Your task to perform on an android device: visit the assistant section in the google photos Image 0: 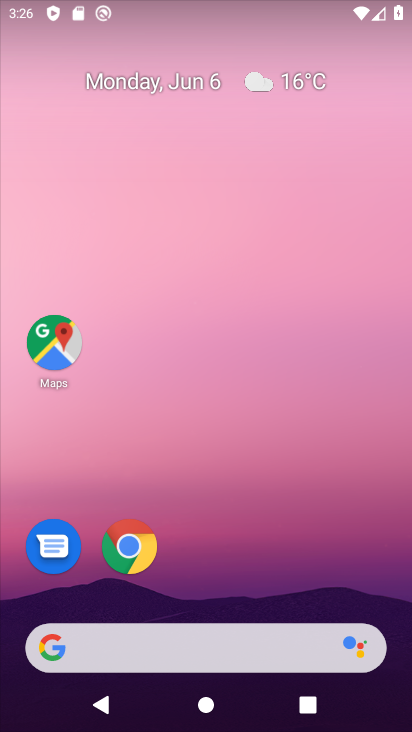
Step 0: drag from (303, 585) to (310, 3)
Your task to perform on an android device: visit the assistant section in the google photos Image 1: 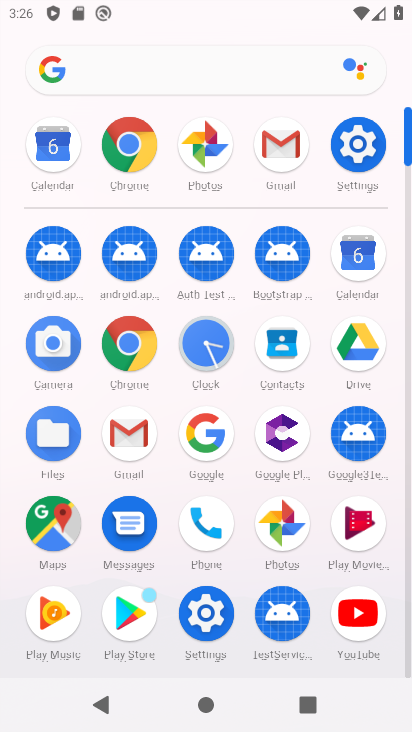
Step 1: click (206, 160)
Your task to perform on an android device: visit the assistant section in the google photos Image 2: 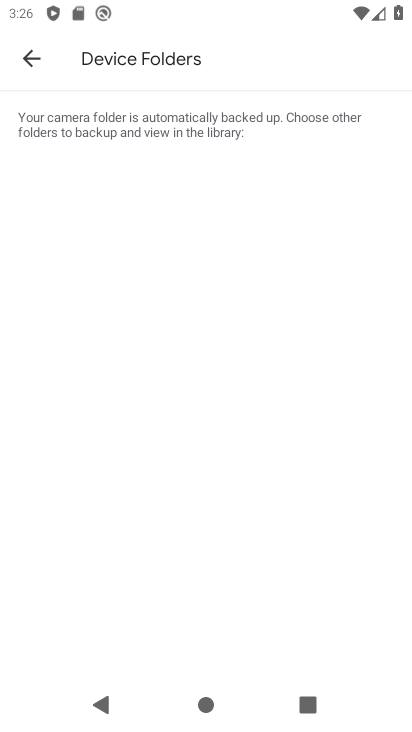
Step 2: click (34, 71)
Your task to perform on an android device: visit the assistant section in the google photos Image 3: 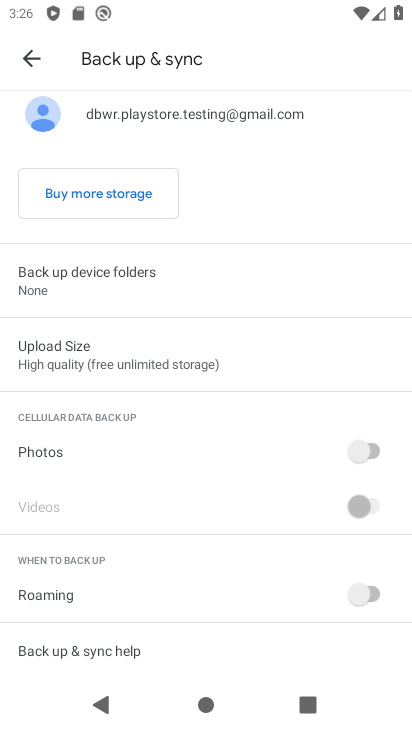
Step 3: click (34, 71)
Your task to perform on an android device: visit the assistant section in the google photos Image 4: 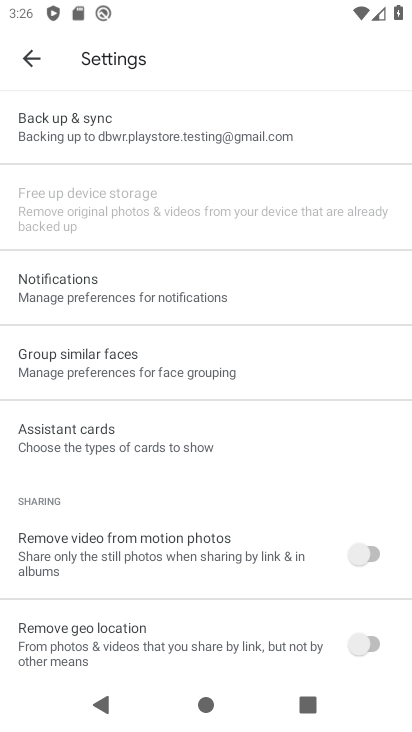
Step 4: click (34, 73)
Your task to perform on an android device: visit the assistant section in the google photos Image 5: 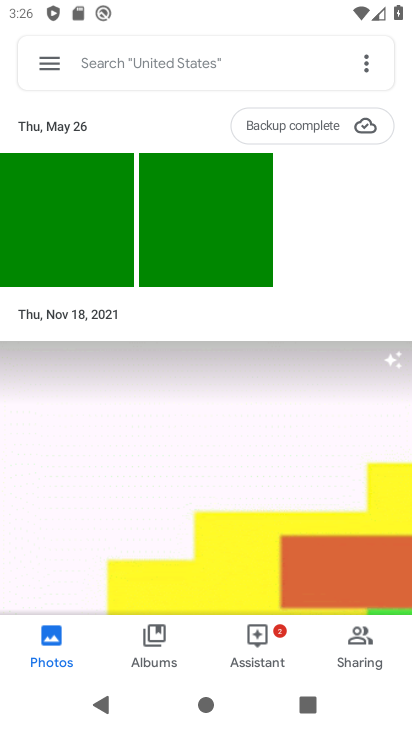
Step 5: click (277, 636)
Your task to perform on an android device: visit the assistant section in the google photos Image 6: 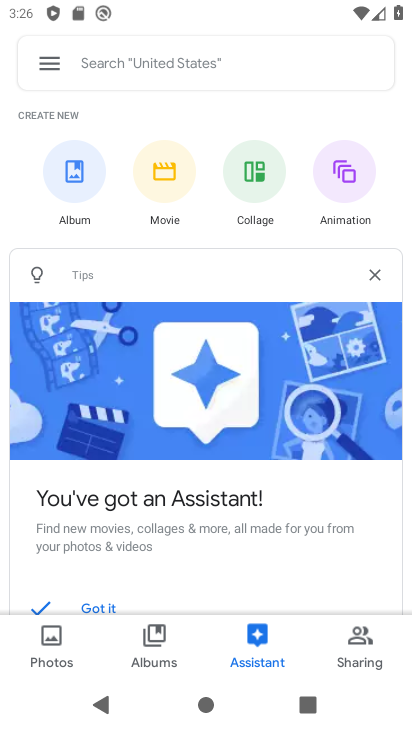
Step 6: task complete